Your task to perform on an android device: Check the weather Image 0: 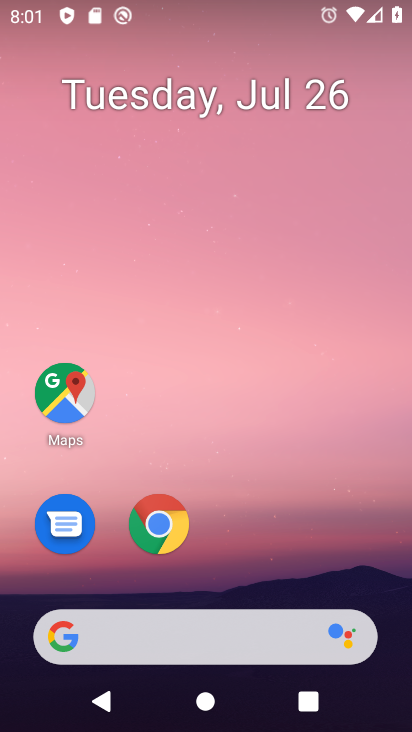
Step 0: click (196, 633)
Your task to perform on an android device: Check the weather Image 1: 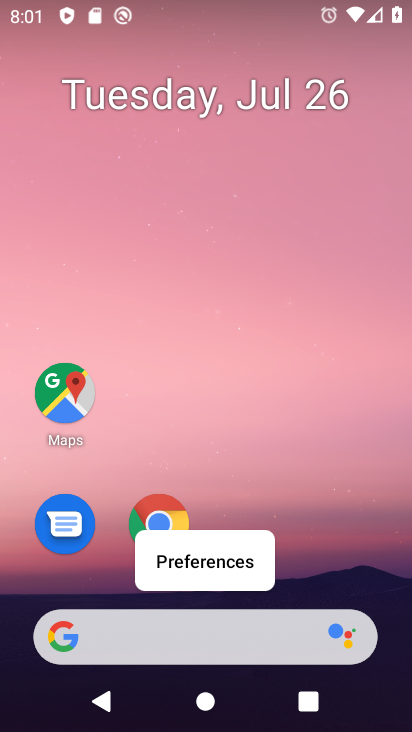
Step 1: click (180, 647)
Your task to perform on an android device: Check the weather Image 2: 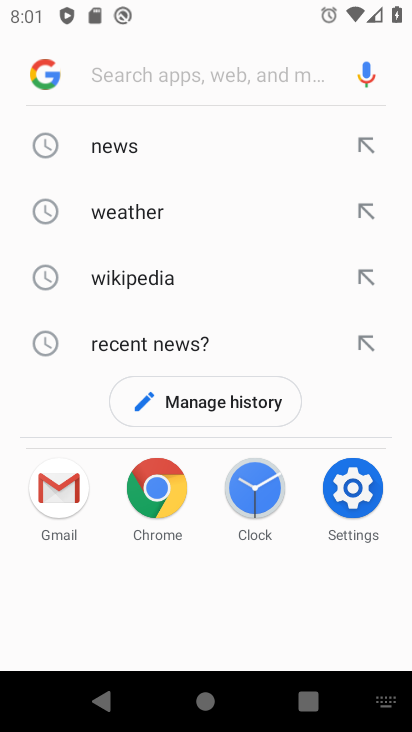
Step 2: click (139, 211)
Your task to perform on an android device: Check the weather Image 3: 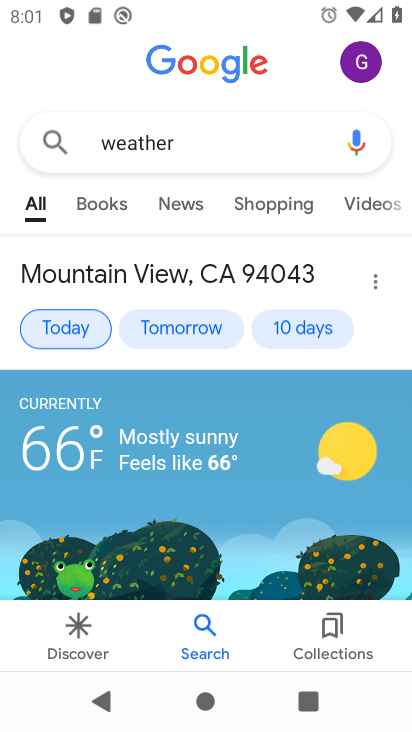
Step 3: click (55, 319)
Your task to perform on an android device: Check the weather Image 4: 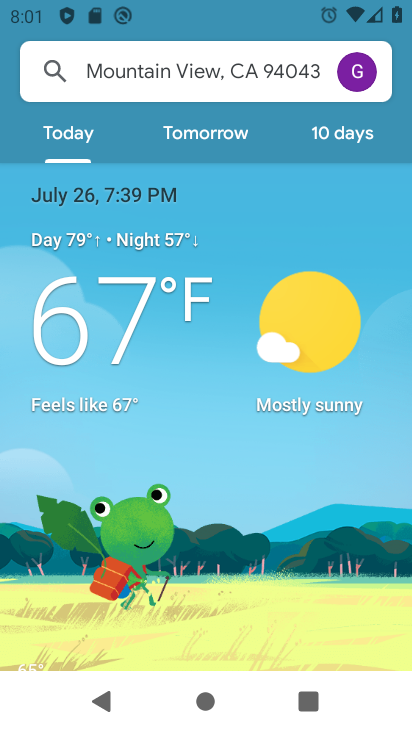
Step 4: task complete